Your task to perform on an android device: add a contact in the contacts app Image 0: 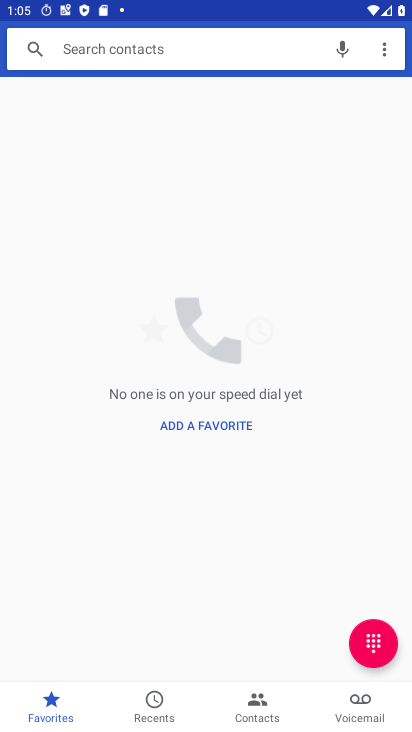
Step 0: press home button
Your task to perform on an android device: add a contact in the contacts app Image 1: 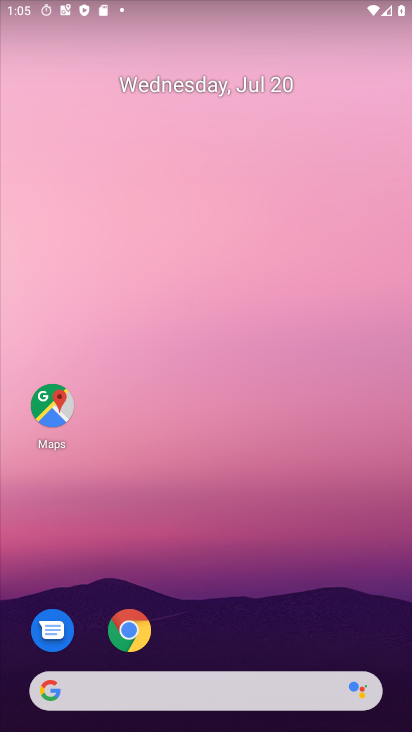
Step 1: drag from (279, 618) to (206, 241)
Your task to perform on an android device: add a contact in the contacts app Image 2: 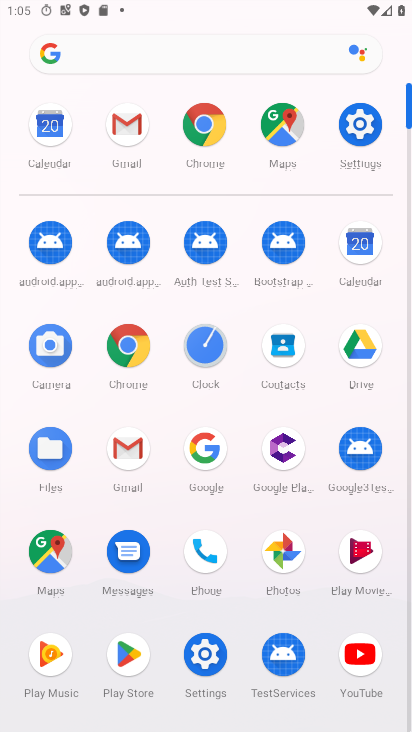
Step 2: click (284, 326)
Your task to perform on an android device: add a contact in the contacts app Image 3: 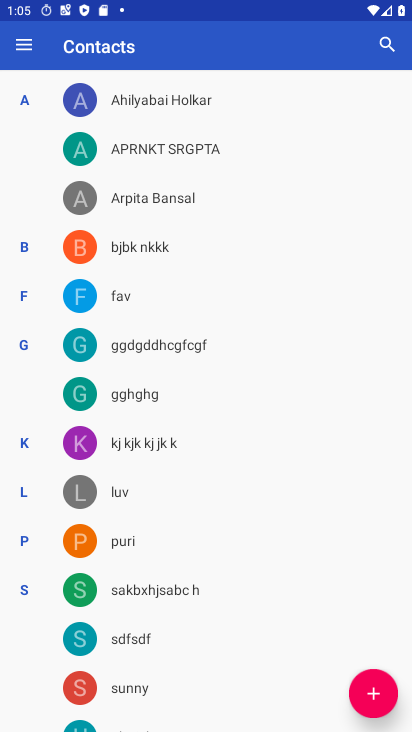
Step 3: click (381, 694)
Your task to perform on an android device: add a contact in the contacts app Image 4: 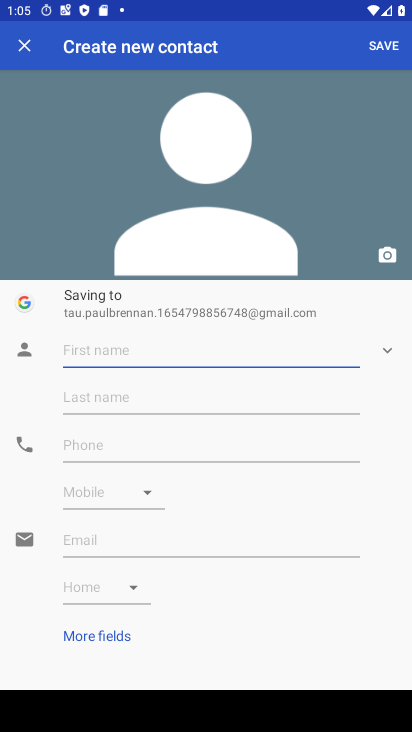
Step 4: type "yhju"
Your task to perform on an android device: add a contact in the contacts app Image 5: 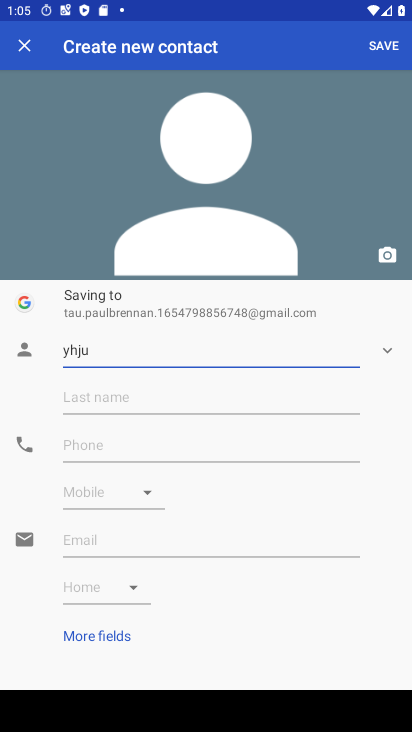
Step 5: click (169, 453)
Your task to perform on an android device: add a contact in the contacts app Image 6: 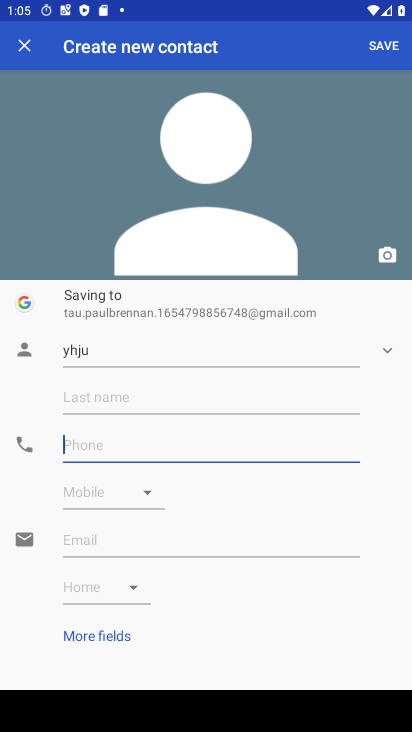
Step 6: type "9201837465"
Your task to perform on an android device: add a contact in the contacts app Image 7: 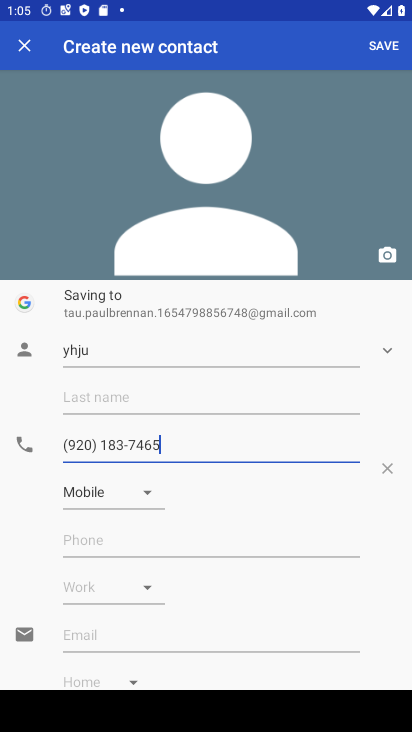
Step 7: click (388, 43)
Your task to perform on an android device: add a contact in the contacts app Image 8: 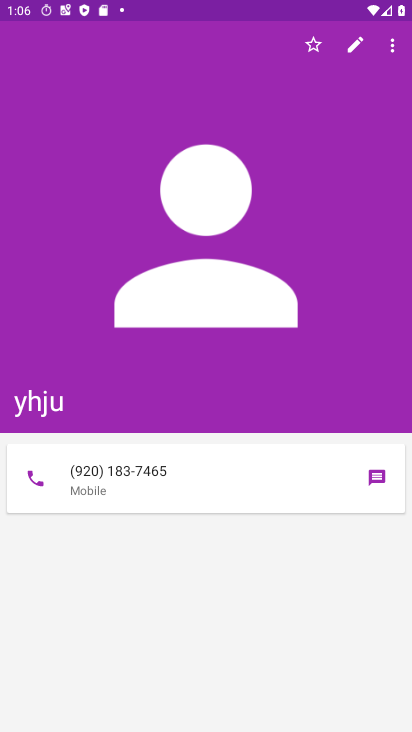
Step 8: task complete